Your task to perform on an android device: Open the calendar and show me this week's events Image 0: 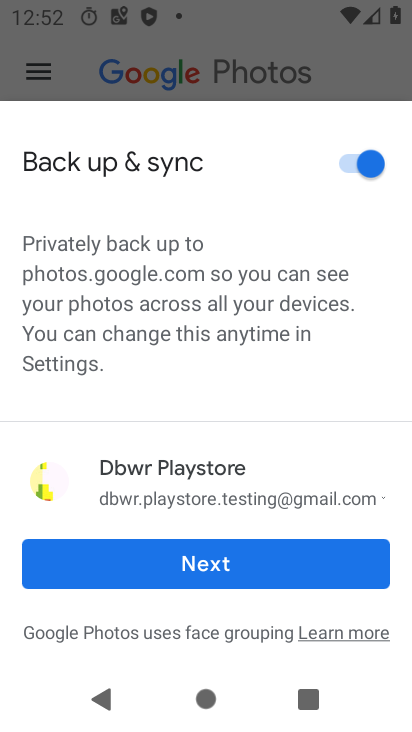
Step 0: press home button
Your task to perform on an android device: Open the calendar and show me this week's events Image 1: 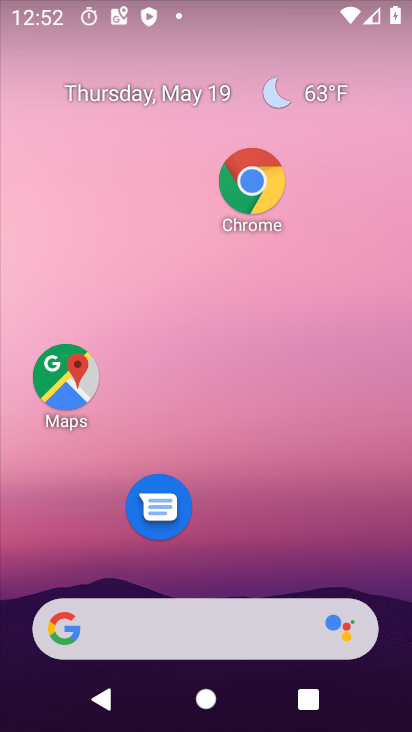
Step 1: drag from (145, 564) to (148, 96)
Your task to perform on an android device: Open the calendar and show me this week's events Image 2: 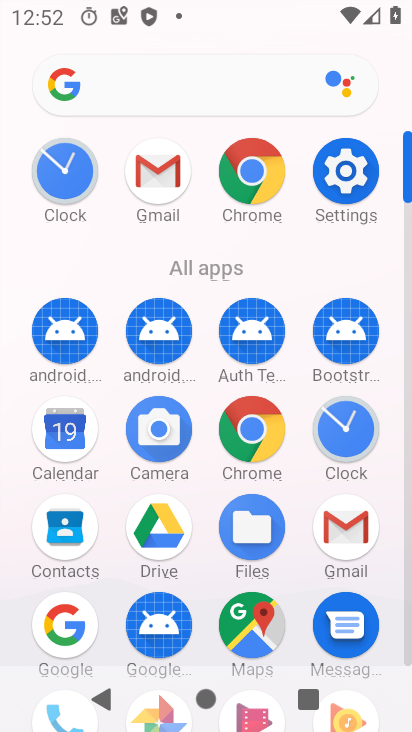
Step 2: click (58, 466)
Your task to perform on an android device: Open the calendar and show me this week's events Image 3: 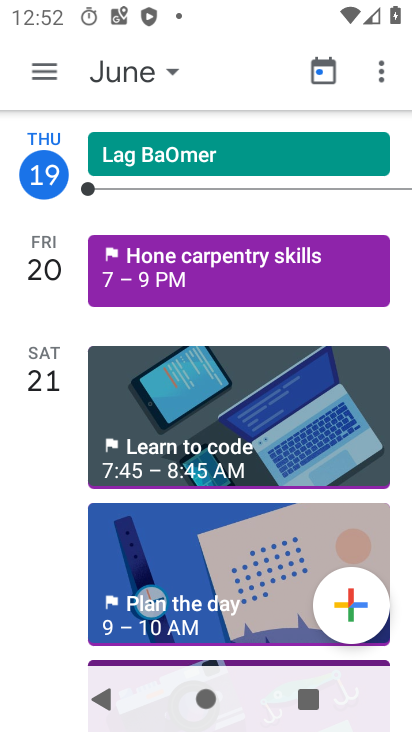
Step 3: click (53, 66)
Your task to perform on an android device: Open the calendar and show me this week's events Image 4: 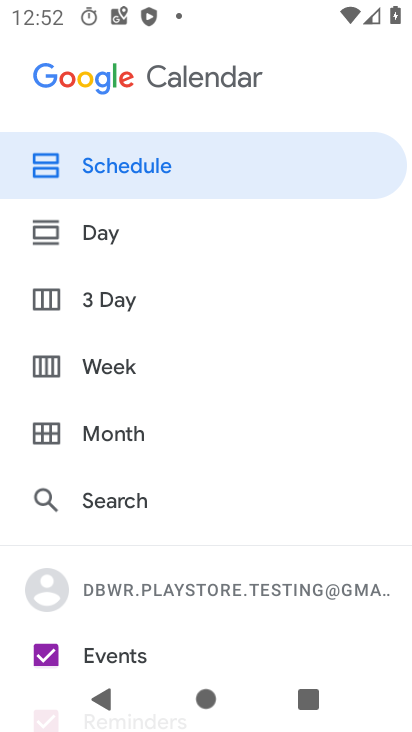
Step 4: click (116, 371)
Your task to perform on an android device: Open the calendar and show me this week's events Image 5: 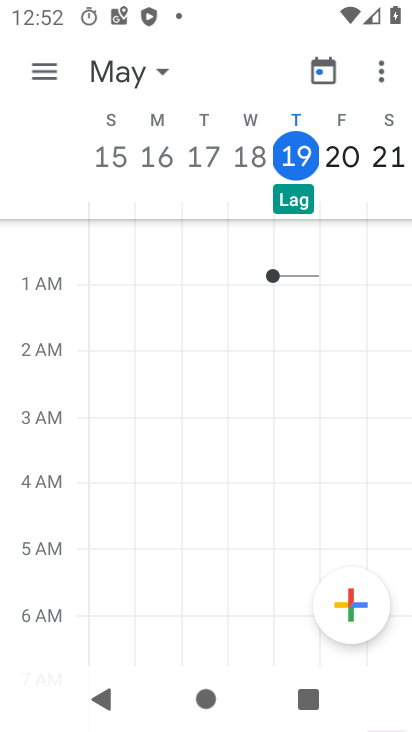
Step 5: click (119, 76)
Your task to perform on an android device: Open the calendar and show me this week's events Image 6: 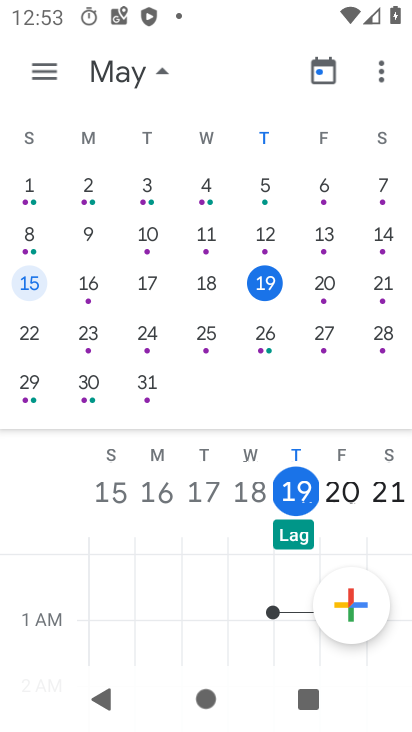
Step 6: click (37, 284)
Your task to perform on an android device: Open the calendar and show me this week's events Image 7: 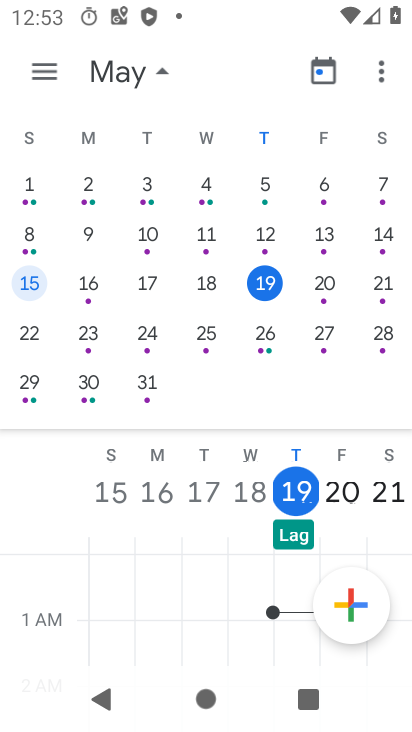
Step 7: task complete